Your task to perform on an android device: Open the map Image 0: 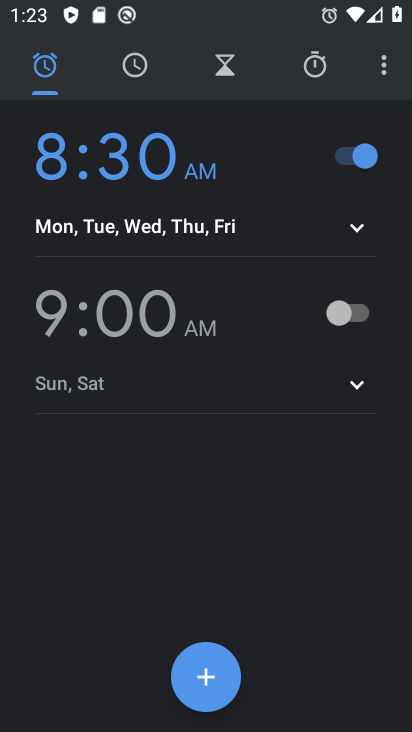
Step 0: press home button
Your task to perform on an android device: Open the map Image 1: 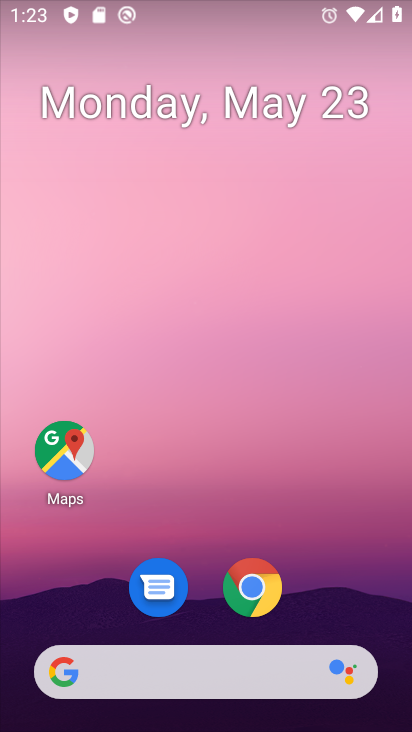
Step 1: click (73, 455)
Your task to perform on an android device: Open the map Image 2: 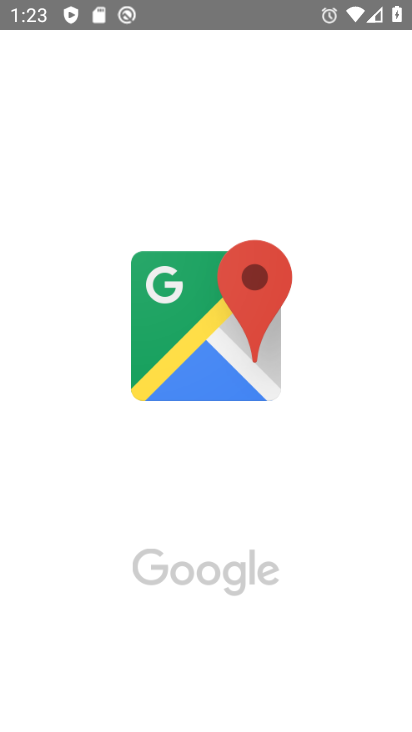
Step 2: task complete